Your task to perform on an android device: open sync settings in chrome Image 0: 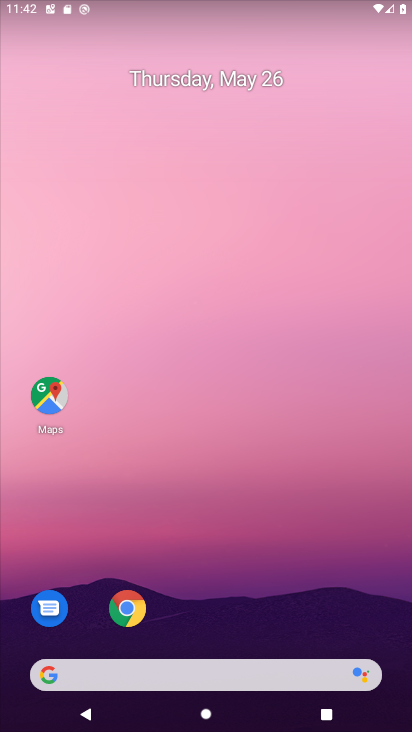
Step 0: click (127, 605)
Your task to perform on an android device: open sync settings in chrome Image 1: 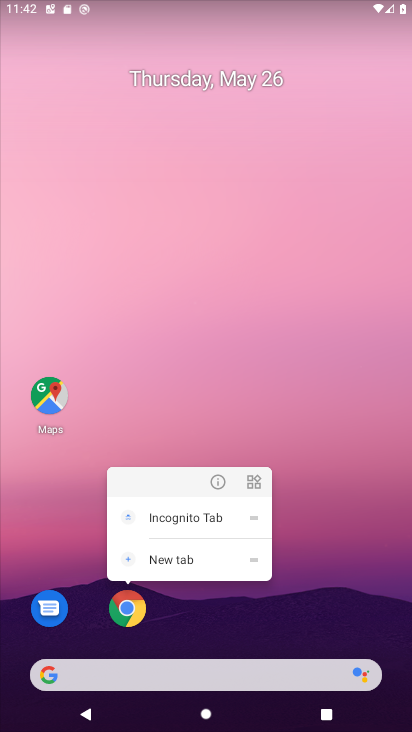
Step 1: click (132, 600)
Your task to perform on an android device: open sync settings in chrome Image 2: 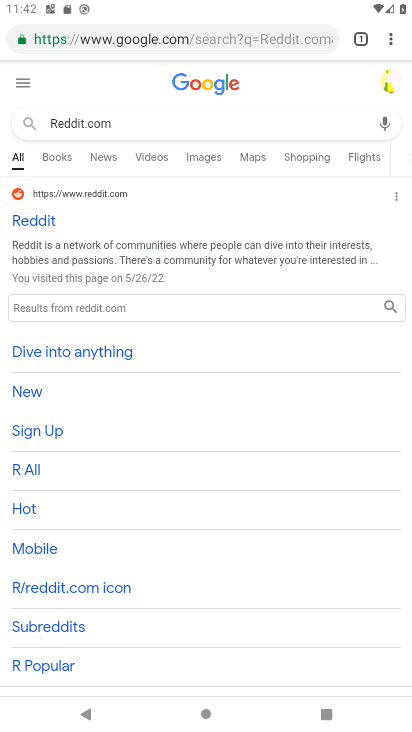
Step 2: click (387, 42)
Your task to perform on an android device: open sync settings in chrome Image 3: 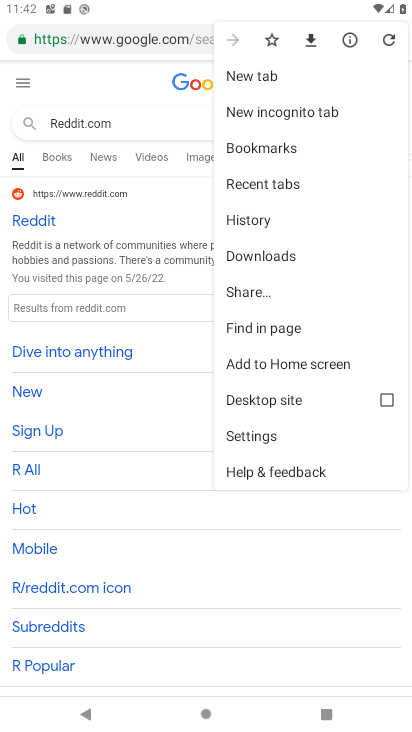
Step 3: click (256, 432)
Your task to perform on an android device: open sync settings in chrome Image 4: 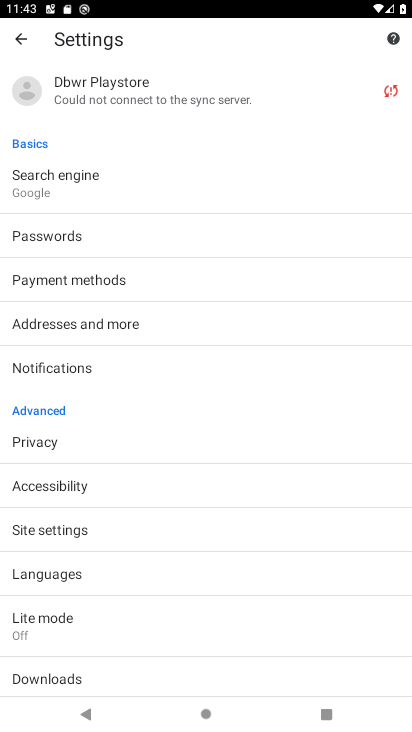
Step 4: drag from (168, 668) to (203, 351)
Your task to perform on an android device: open sync settings in chrome Image 5: 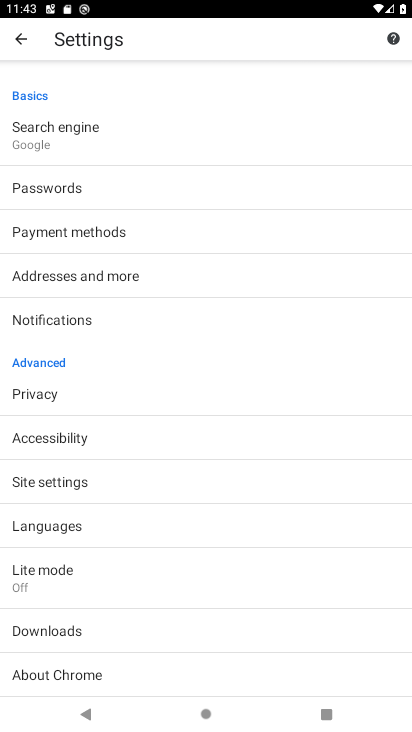
Step 5: click (48, 483)
Your task to perform on an android device: open sync settings in chrome Image 6: 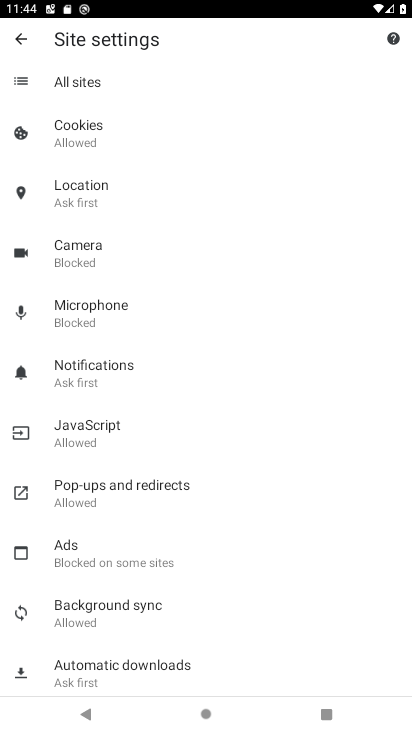
Step 6: click (79, 604)
Your task to perform on an android device: open sync settings in chrome Image 7: 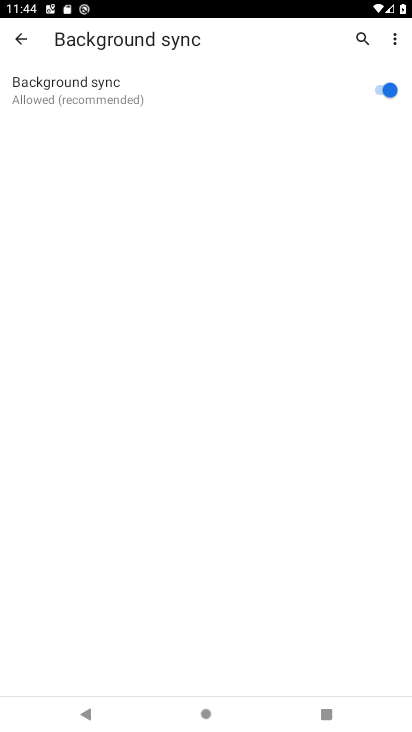
Step 7: task complete